Your task to perform on an android device: Open Android settings Image 0: 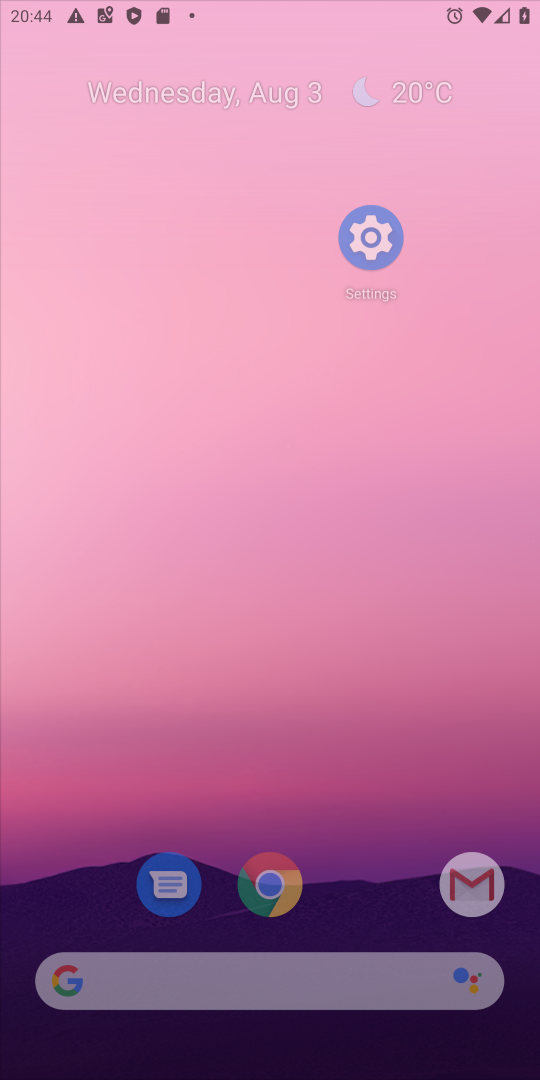
Step 0: press home button
Your task to perform on an android device: Open Android settings Image 1: 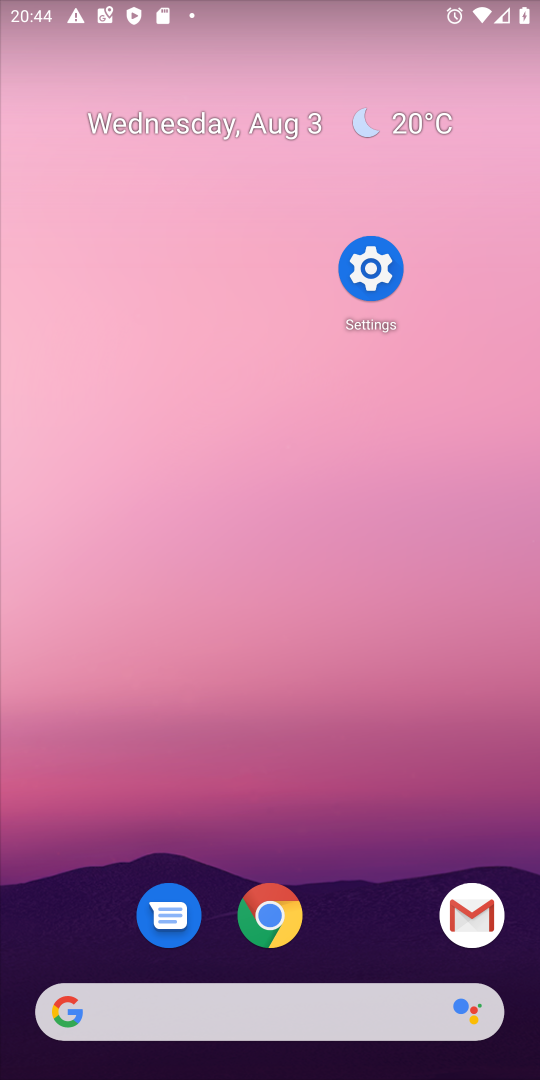
Step 1: drag from (315, 917) to (220, 179)
Your task to perform on an android device: Open Android settings Image 2: 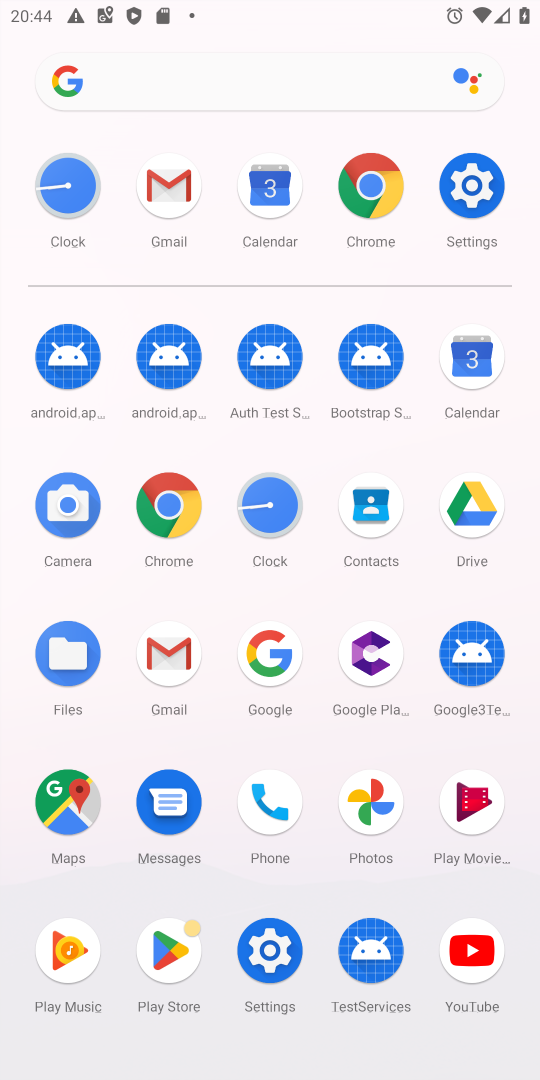
Step 2: click (493, 177)
Your task to perform on an android device: Open Android settings Image 3: 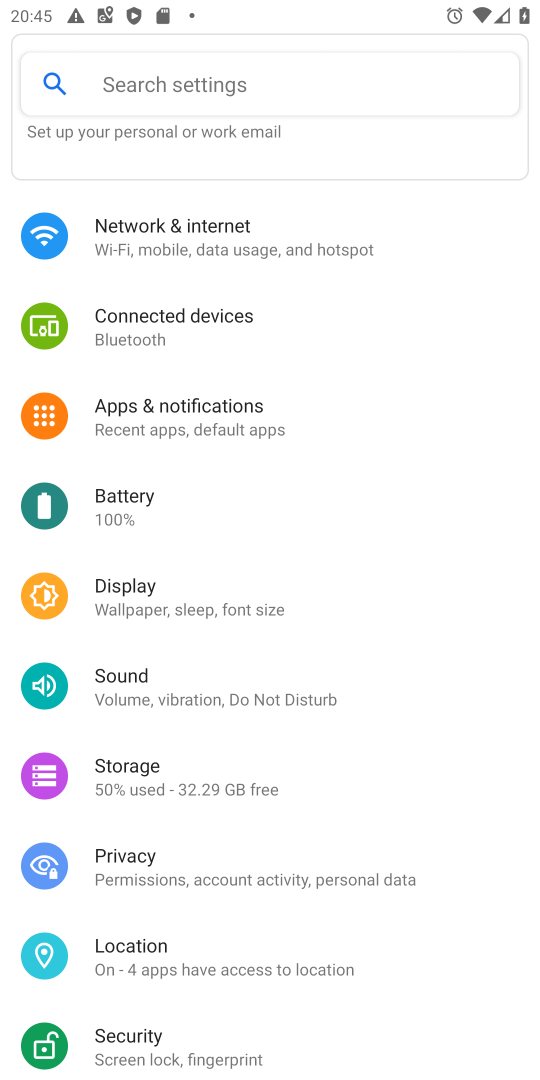
Step 3: click (167, 91)
Your task to perform on an android device: Open Android settings Image 4: 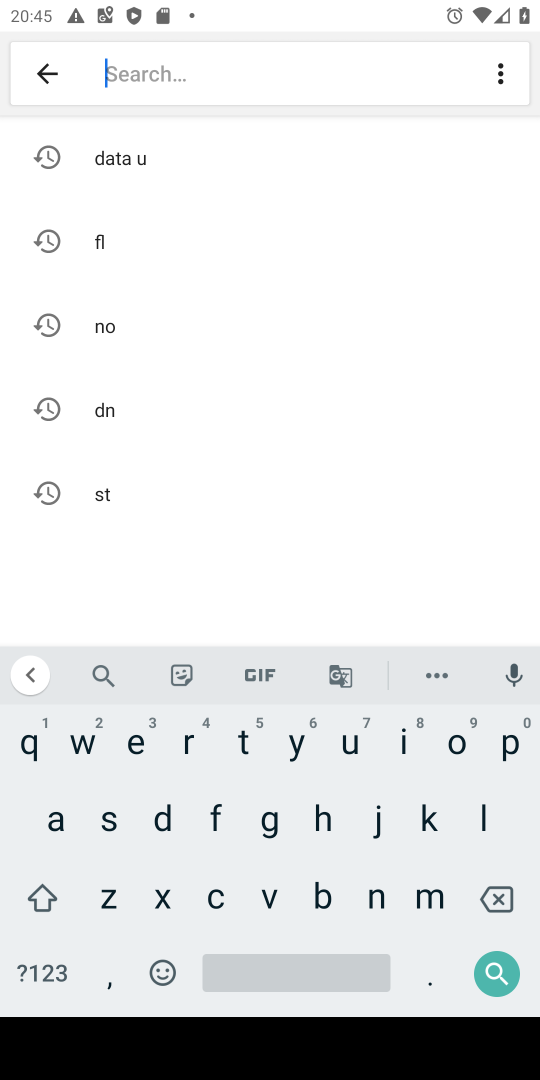
Step 4: click (53, 812)
Your task to perform on an android device: Open Android settings Image 5: 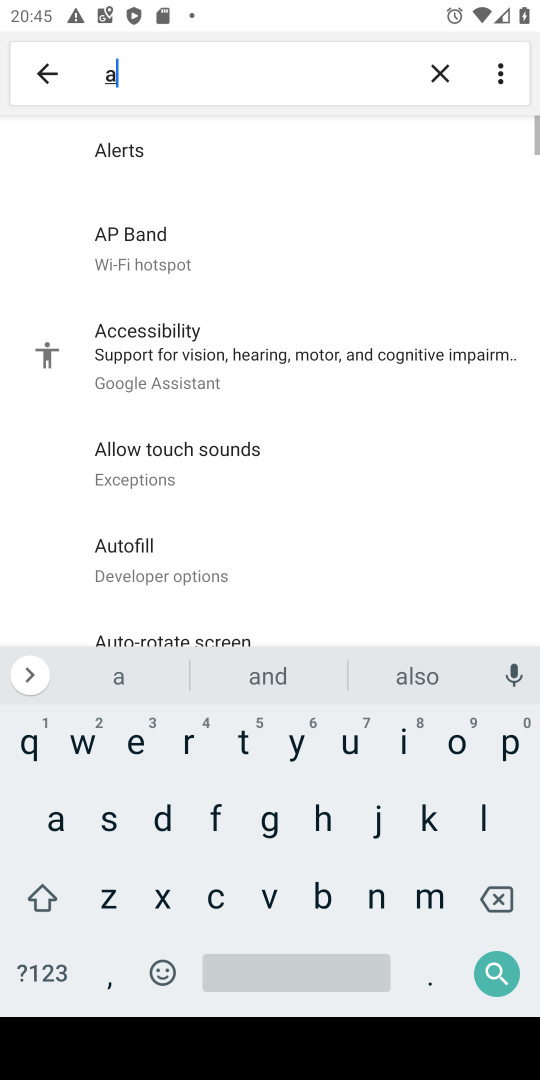
Step 5: click (380, 907)
Your task to perform on an android device: Open Android settings Image 6: 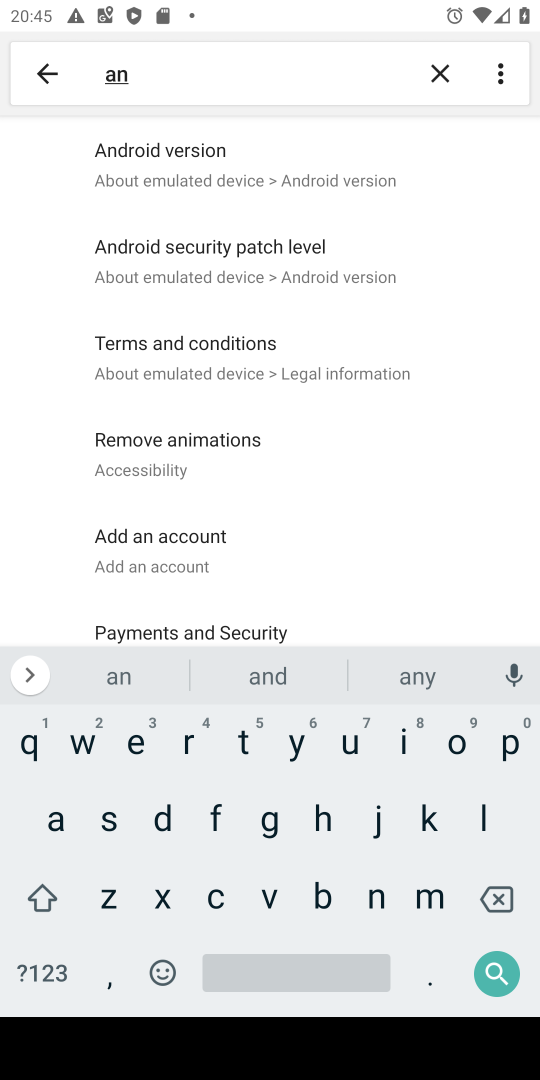
Step 6: click (197, 168)
Your task to perform on an android device: Open Android settings Image 7: 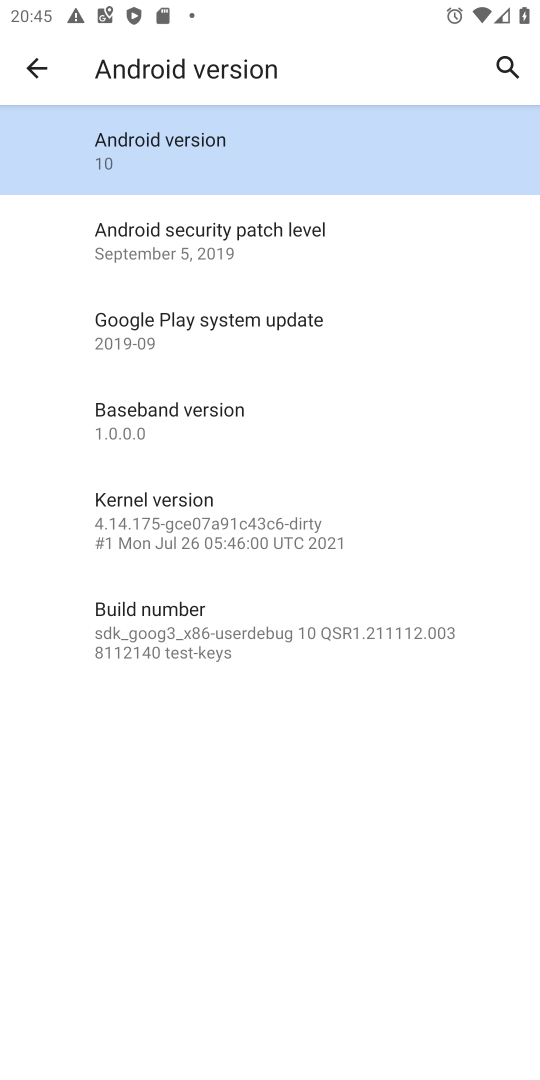
Step 7: click (199, 165)
Your task to perform on an android device: Open Android settings Image 8: 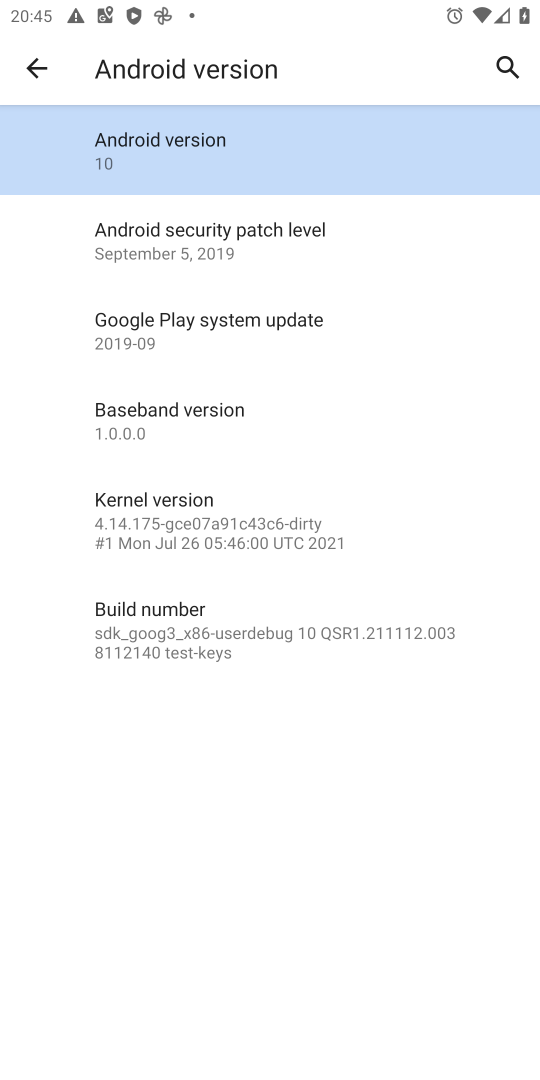
Step 8: task complete